Your task to perform on an android device: choose inbox layout in the gmail app Image 0: 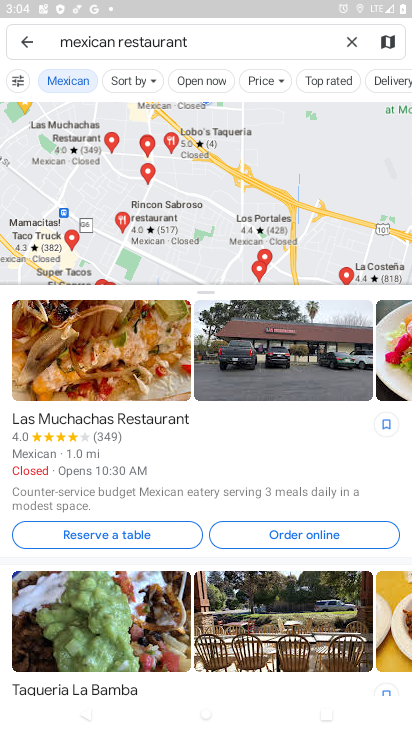
Step 0: press home button
Your task to perform on an android device: choose inbox layout in the gmail app Image 1: 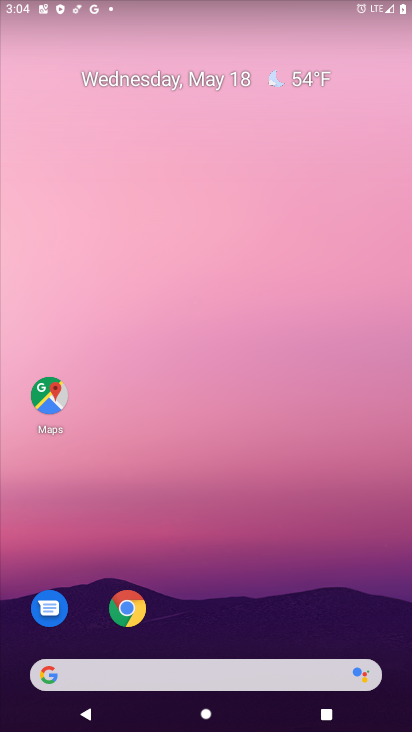
Step 1: drag from (270, 630) to (264, 3)
Your task to perform on an android device: choose inbox layout in the gmail app Image 2: 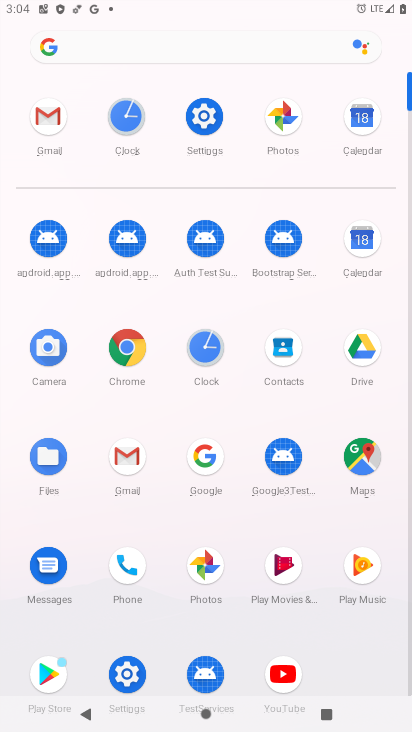
Step 2: click (50, 129)
Your task to perform on an android device: choose inbox layout in the gmail app Image 3: 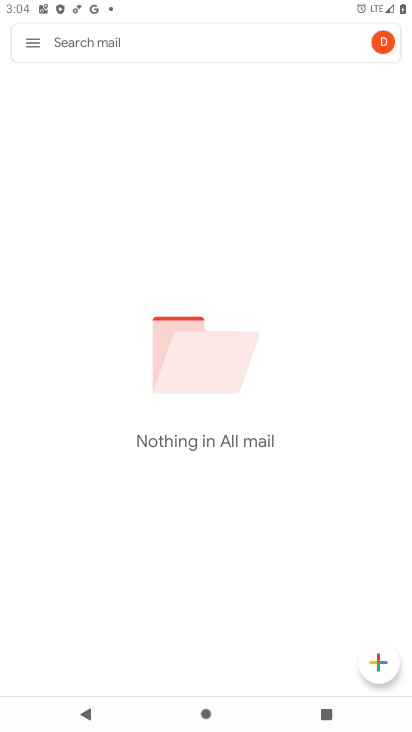
Step 3: click (29, 50)
Your task to perform on an android device: choose inbox layout in the gmail app Image 4: 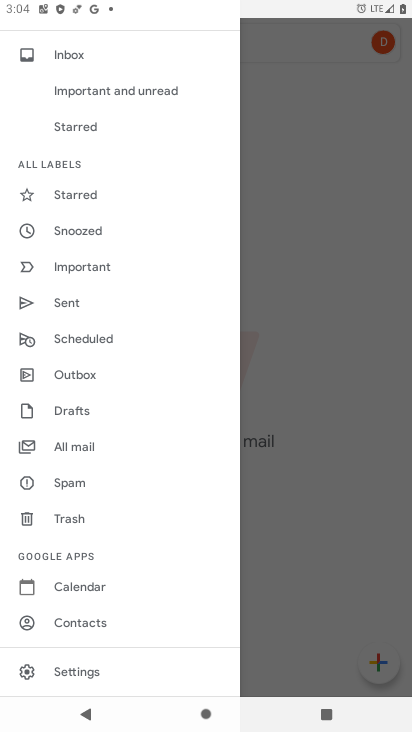
Step 4: click (96, 676)
Your task to perform on an android device: choose inbox layout in the gmail app Image 5: 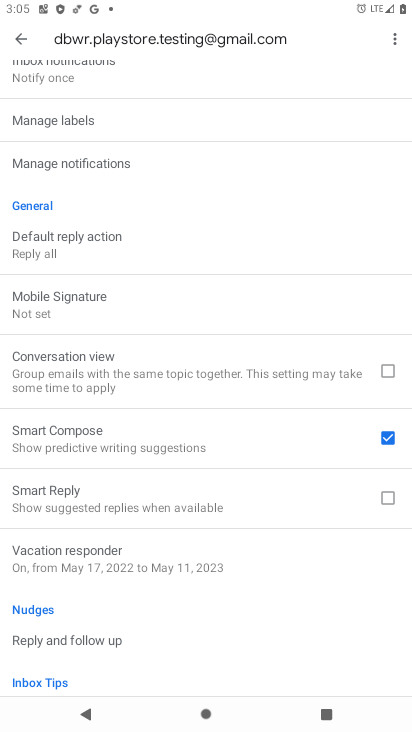
Step 5: drag from (59, 146) to (68, 501)
Your task to perform on an android device: choose inbox layout in the gmail app Image 6: 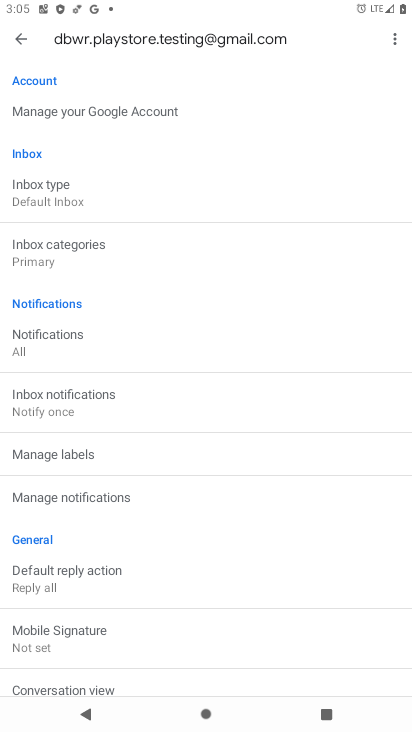
Step 6: click (41, 203)
Your task to perform on an android device: choose inbox layout in the gmail app Image 7: 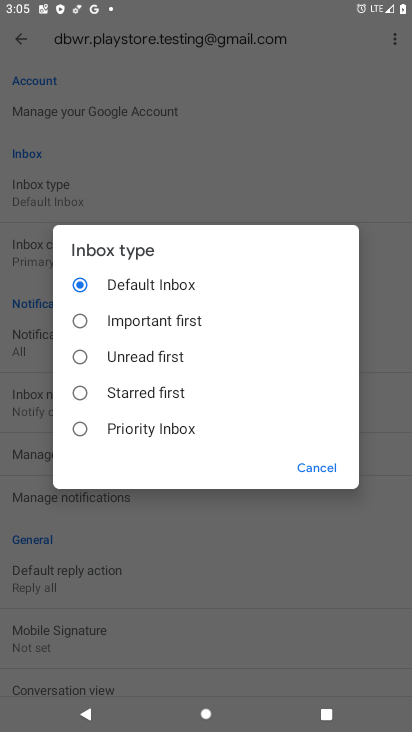
Step 7: click (81, 359)
Your task to perform on an android device: choose inbox layout in the gmail app Image 8: 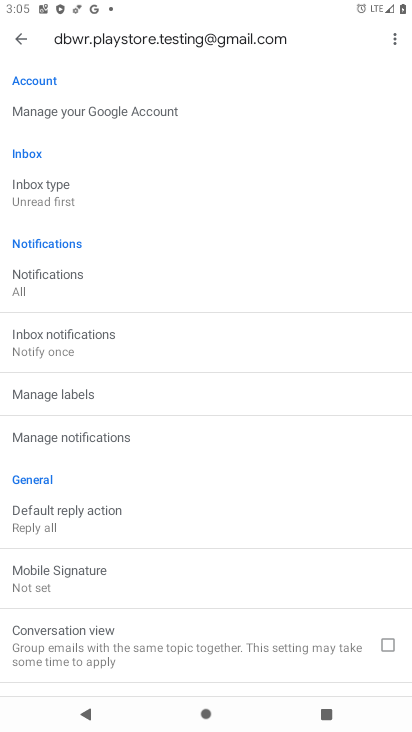
Step 8: task complete